Your task to perform on an android device: toggle priority inbox in the gmail app Image 0: 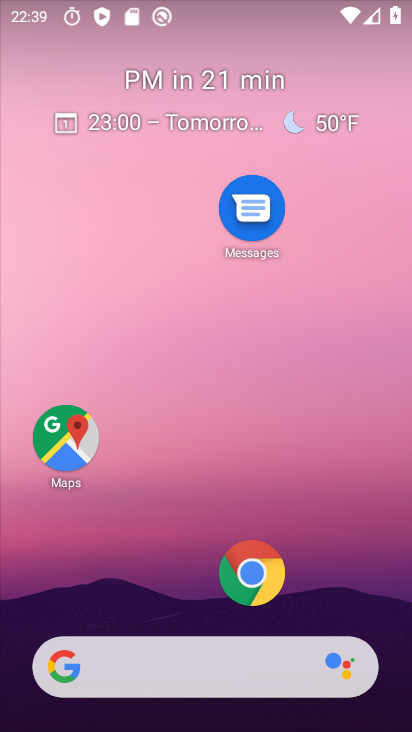
Step 0: drag from (187, 575) to (173, 54)
Your task to perform on an android device: toggle priority inbox in the gmail app Image 1: 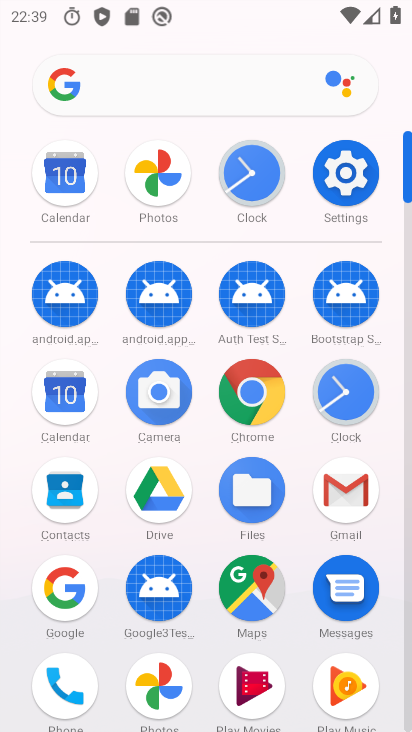
Step 1: click (338, 494)
Your task to perform on an android device: toggle priority inbox in the gmail app Image 2: 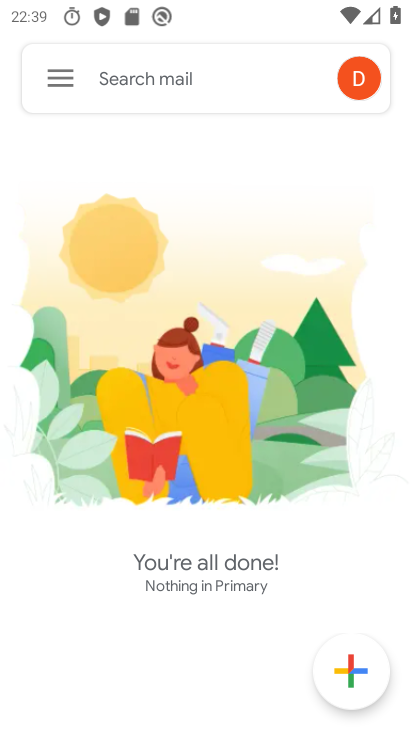
Step 2: click (58, 83)
Your task to perform on an android device: toggle priority inbox in the gmail app Image 3: 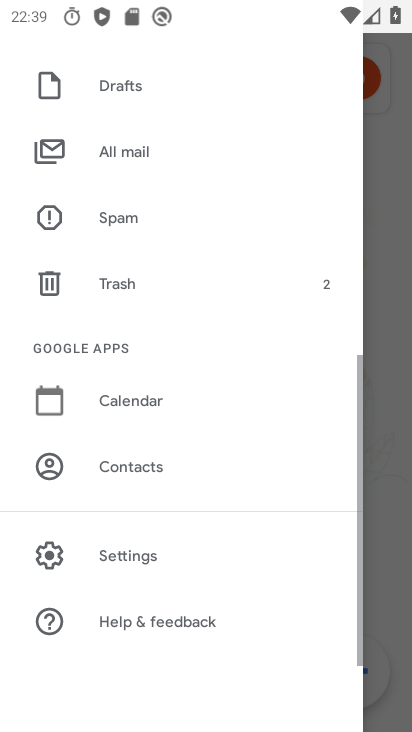
Step 3: click (137, 557)
Your task to perform on an android device: toggle priority inbox in the gmail app Image 4: 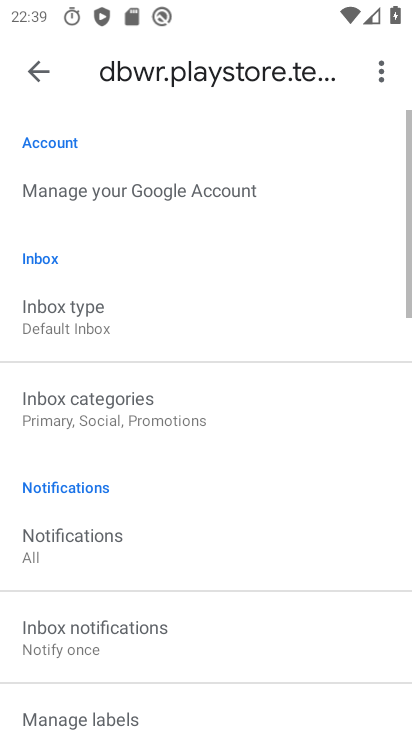
Step 4: drag from (167, 600) to (133, 12)
Your task to perform on an android device: toggle priority inbox in the gmail app Image 5: 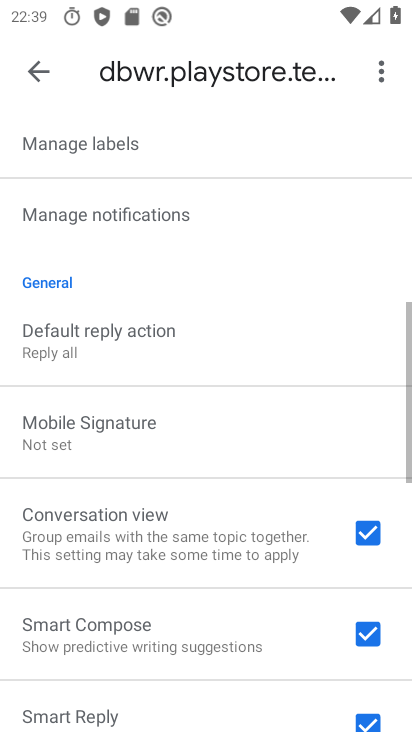
Step 5: drag from (144, 266) to (190, 712)
Your task to perform on an android device: toggle priority inbox in the gmail app Image 6: 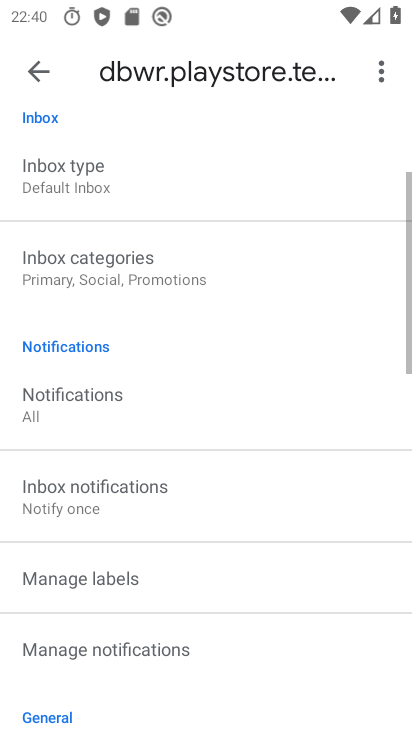
Step 6: click (79, 186)
Your task to perform on an android device: toggle priority inbox in the gmail app Image 7: 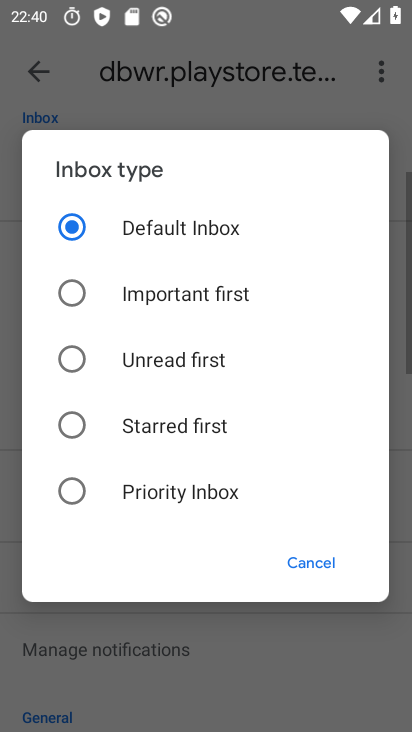
Step 7: click (72, 496)
Your task to perform on an android device: toggle priority inbox in the gmail app Image 8: 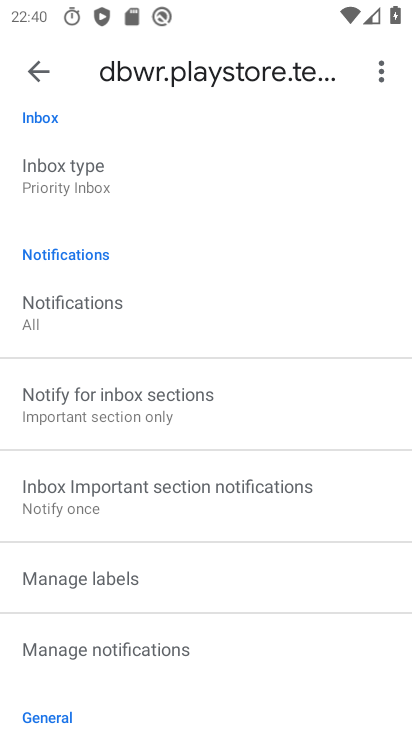
Step 8: task complete